Your task to perform on an android device: turn off priority inbox in the gmail app Image 0: 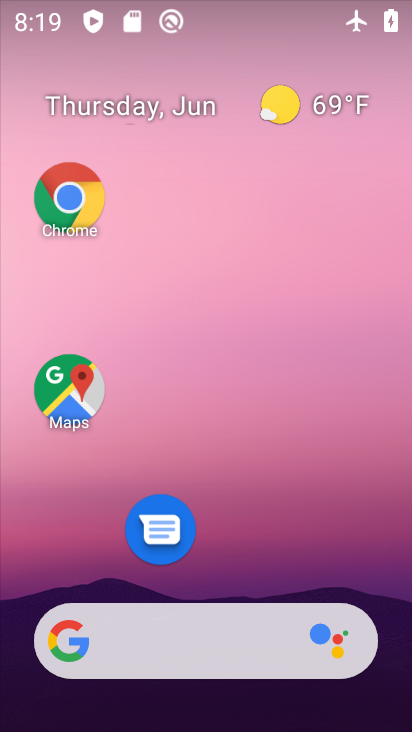
Step 0: drag from (208, 600) to (176, 44)
Your task to perform on an android device: turn off priority inbox in the gmail app Image 1: 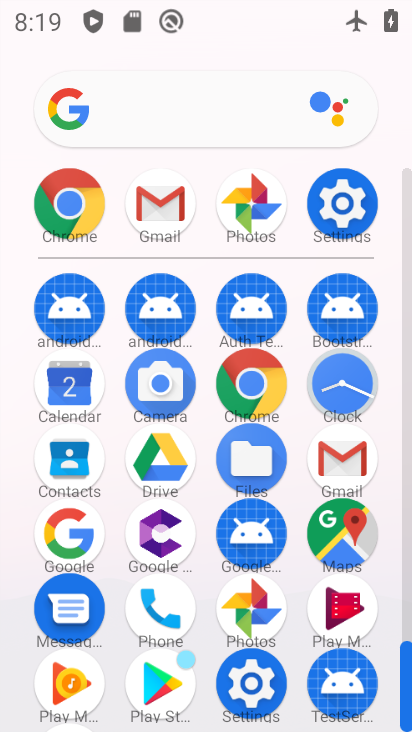
Step 1: click (366, 464)
Your task to perform on an android device: turn off priority inbox in the gmail app Image 2: 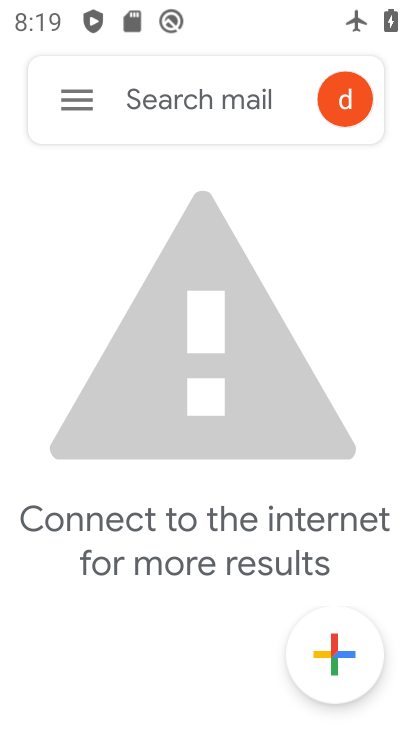
Step 2: click (82, 108)
Your task to perform on an android device: turn off priority inbox in the gmail app Image 3: 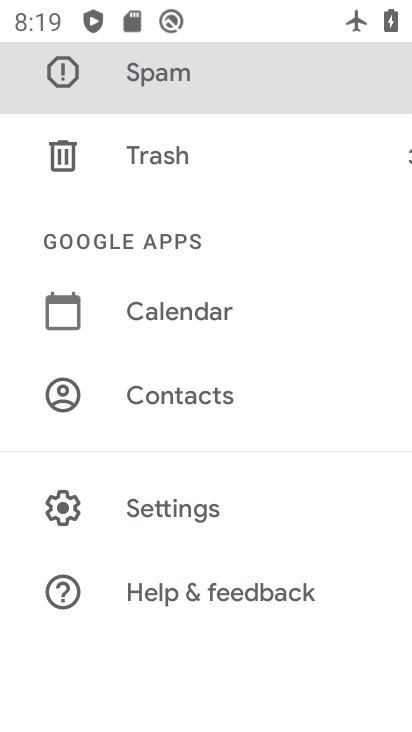
Step 3: click (173, 510)
Your task to perform on an android device: turn off priority inbox in the gmail app Image 4: 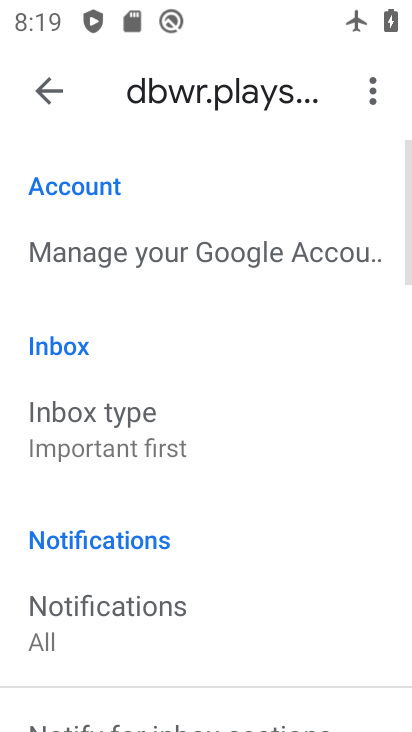
Step 4: click (133, 454)
Your task to perform on an android device: turn off priority inbox in the gmail app Image 5: 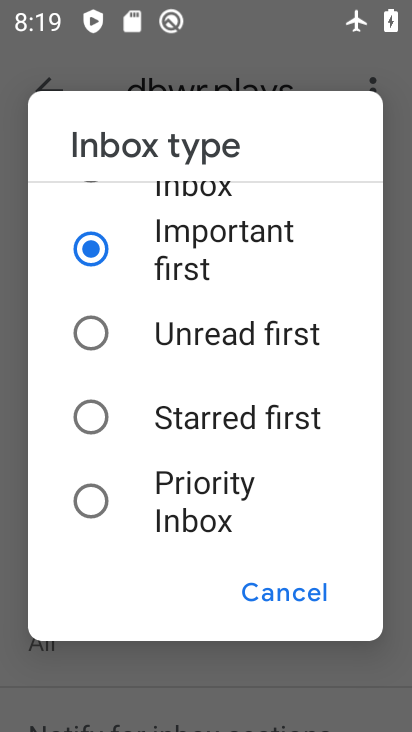
Step 5: task complete